Your task to perform on an android device: install app "Calculator" Image 0: 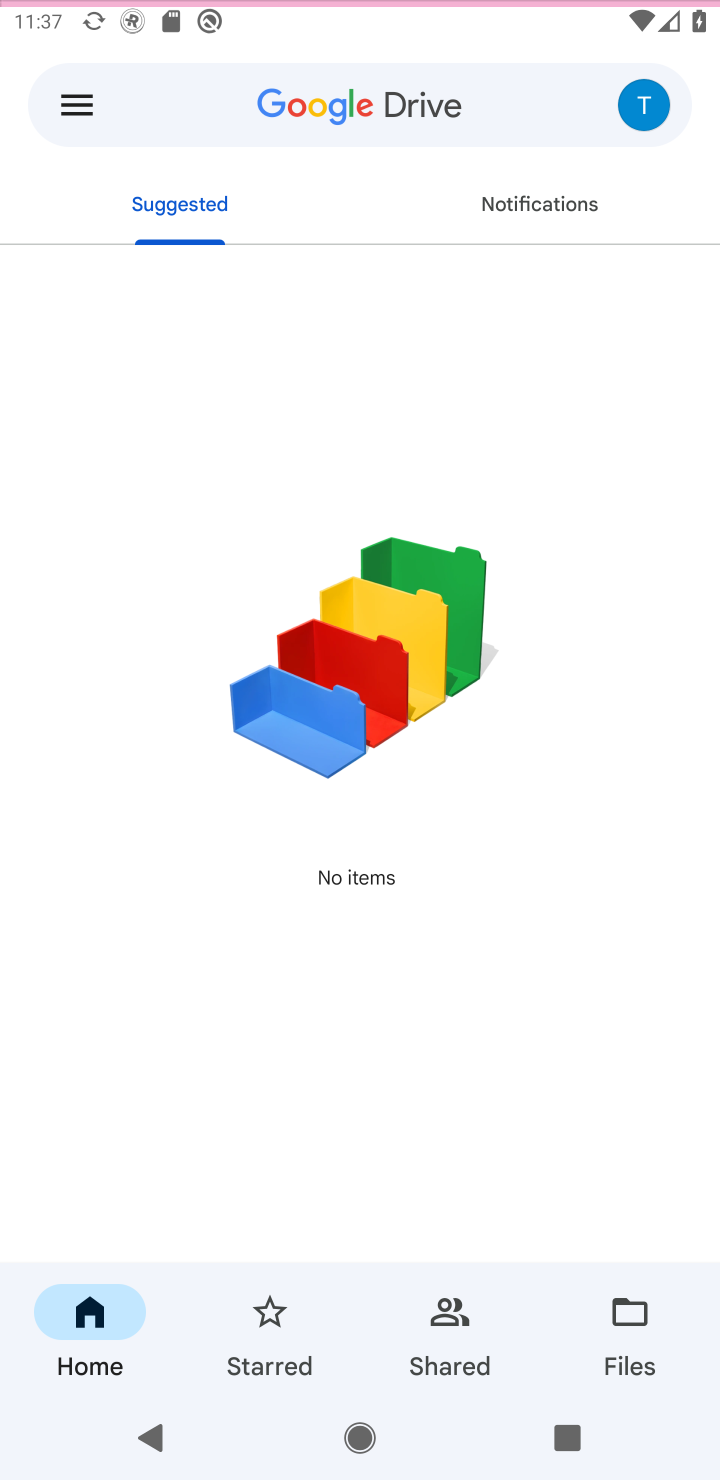
Step 0: press home button
Your task to perform on an android device: install app "Calculator" Image 1: 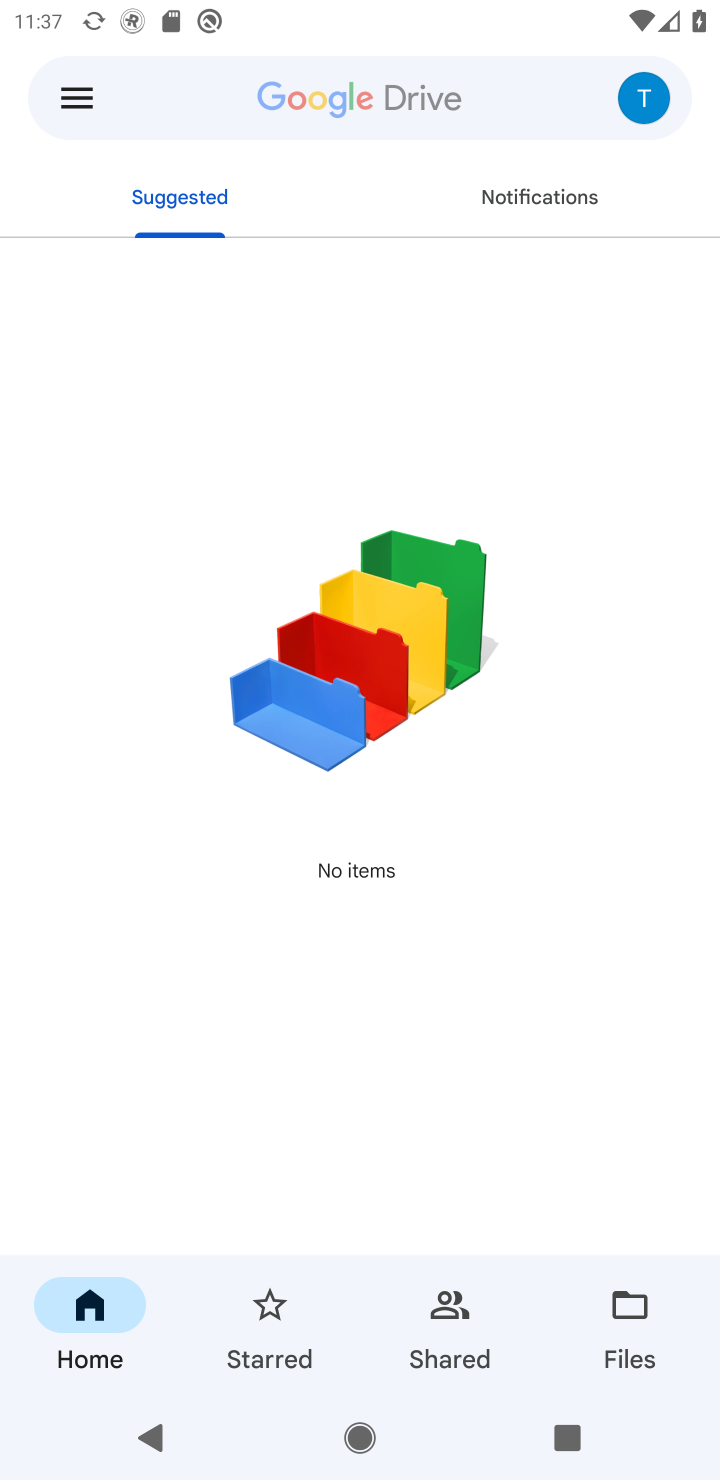
Step 1: press home button
Your task to perform on an android device: install app "Calculator" Image 2: 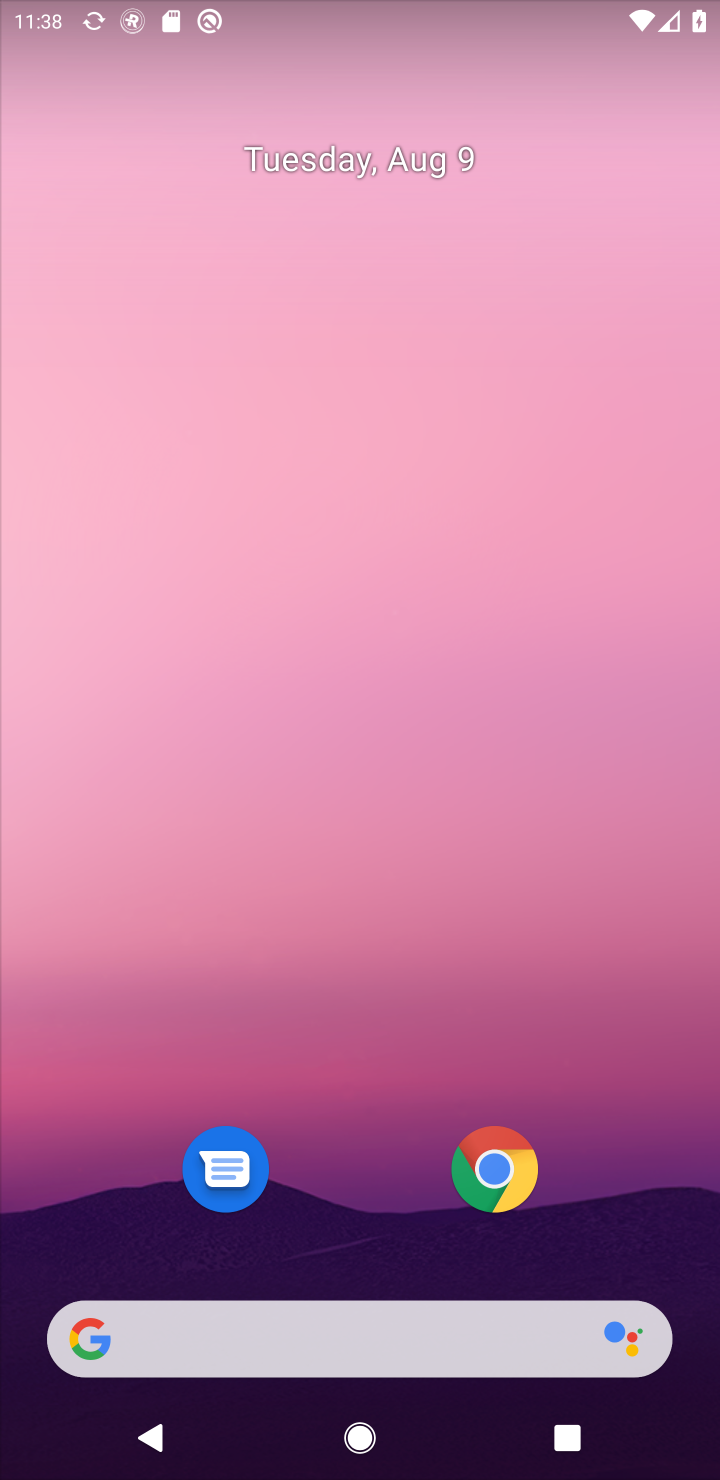
Step 2: drag from (622, 1213) to (651, 143)
Your task to perform on an android device: install app "Calculator" Image 3: 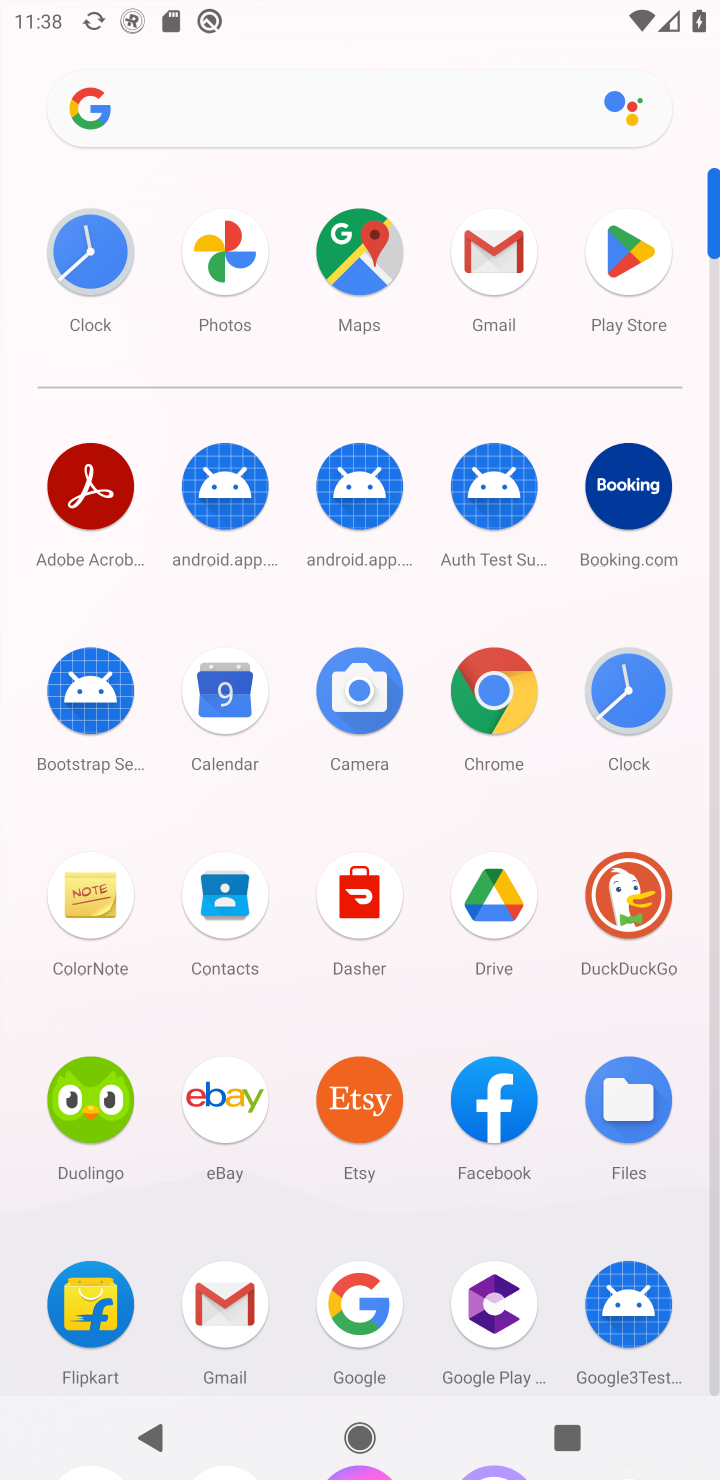
Step 3: click (601, 251)
Your task to perform on an android device: install app "Calculator" Image 4: 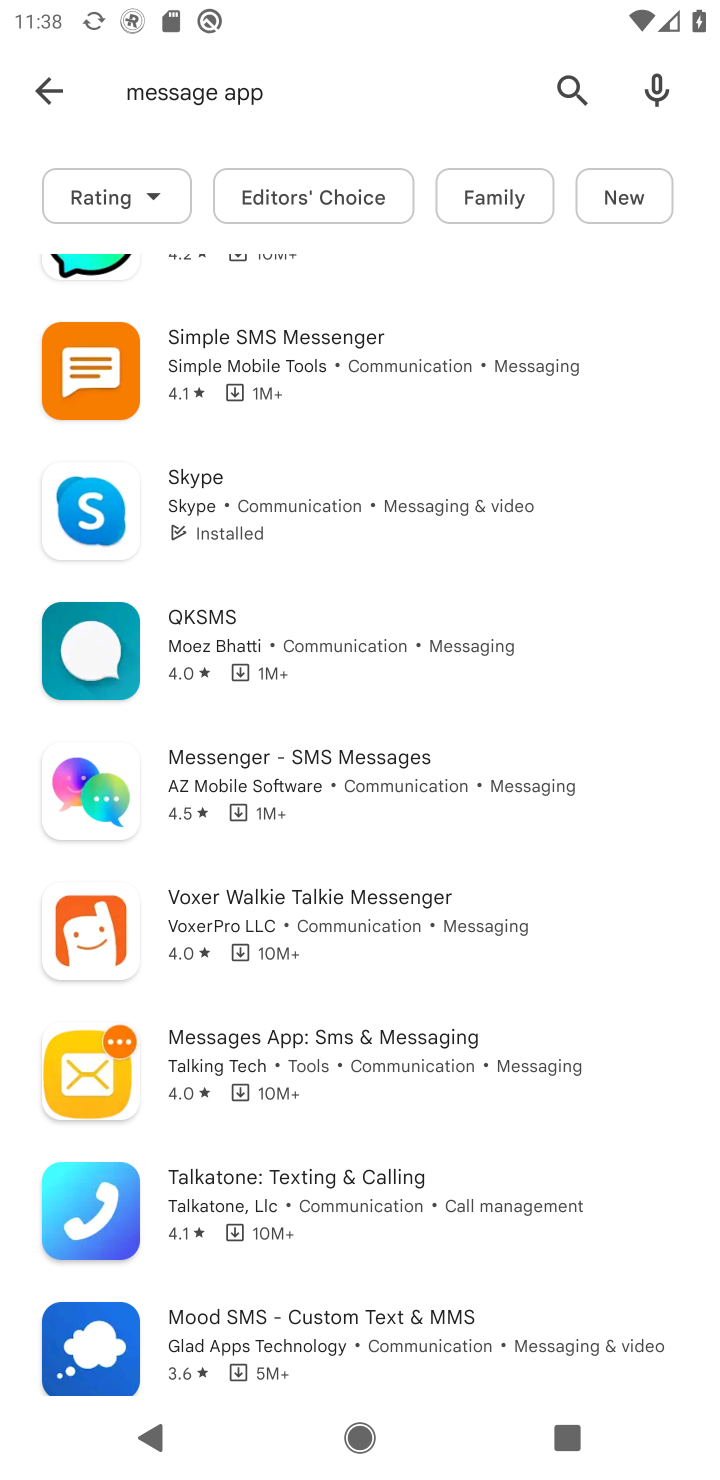
Step 4: click (573, 70)
Your task to perform on an android device: install app "Calculator" Image 5: 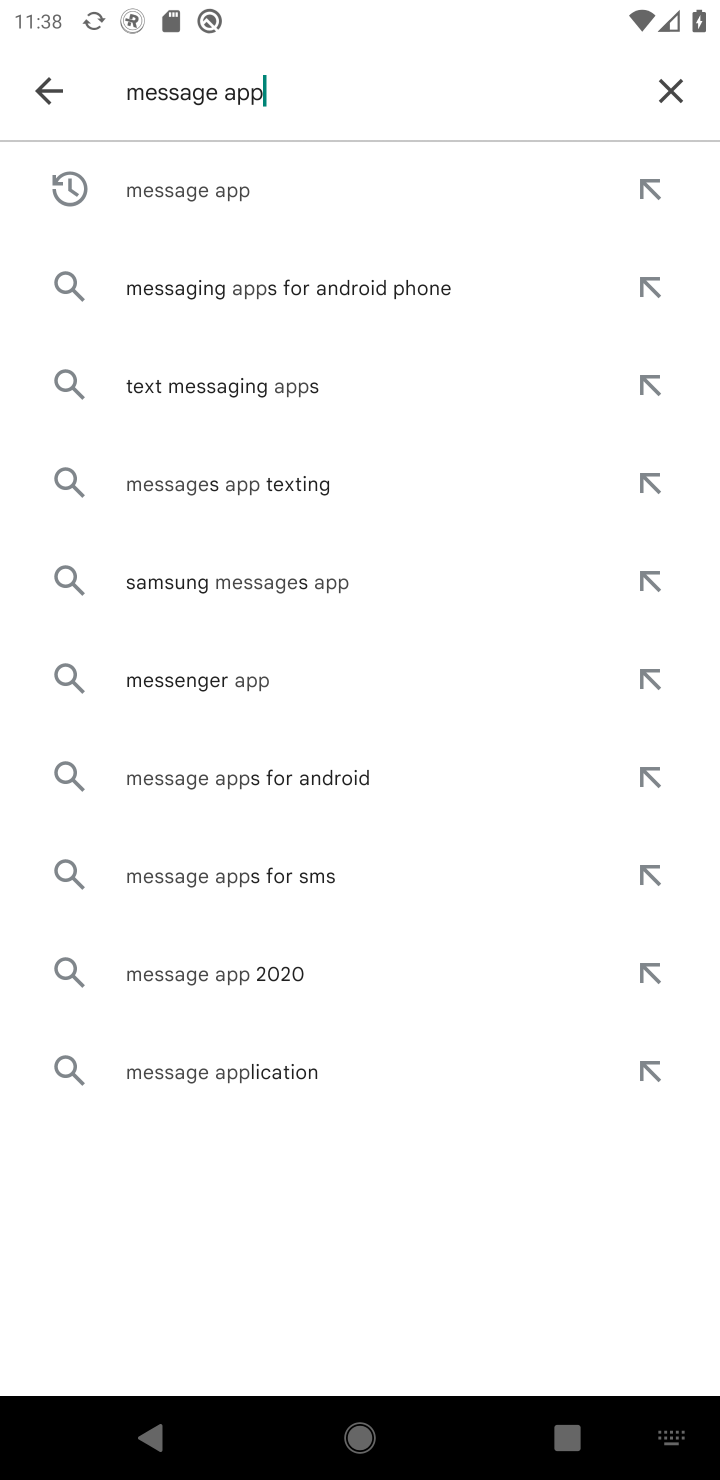
Step 5: click (685, 89)
Your task to perform on an android device: install app "Calculator" Image 6: 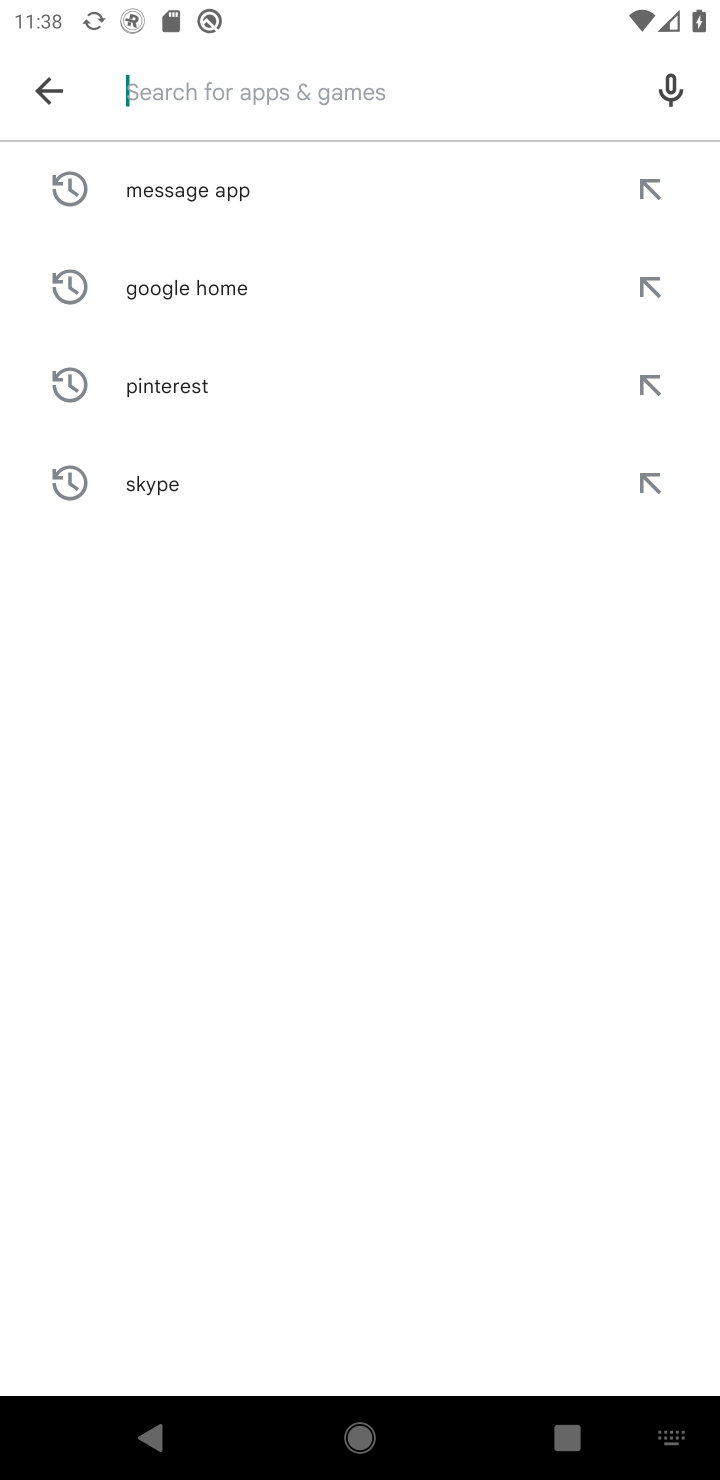
Step 6: type "calculater"
Your task to perform on an android device: install app "Calculator" Image 7: 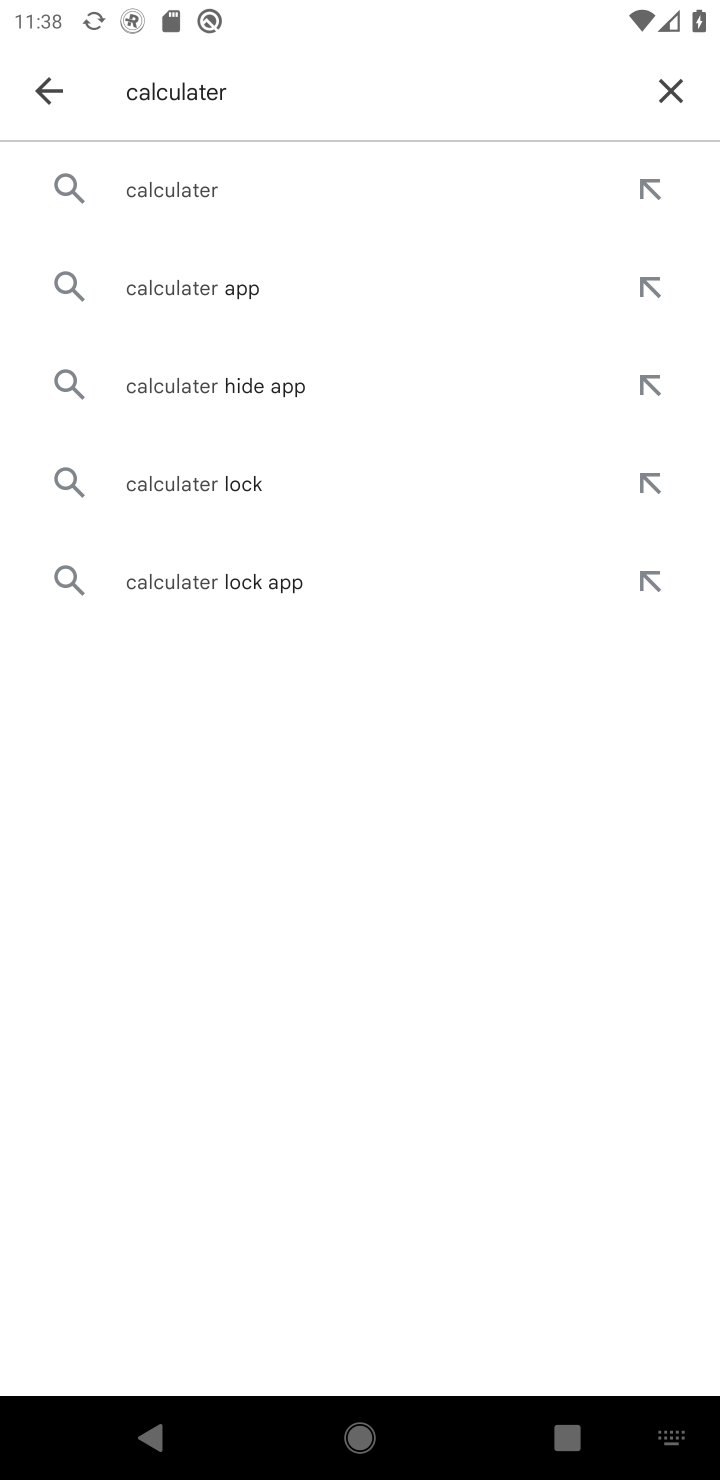
Step 7: click (216, 199)
Your task to perform on an android device: install app "Calculator" Image 8: 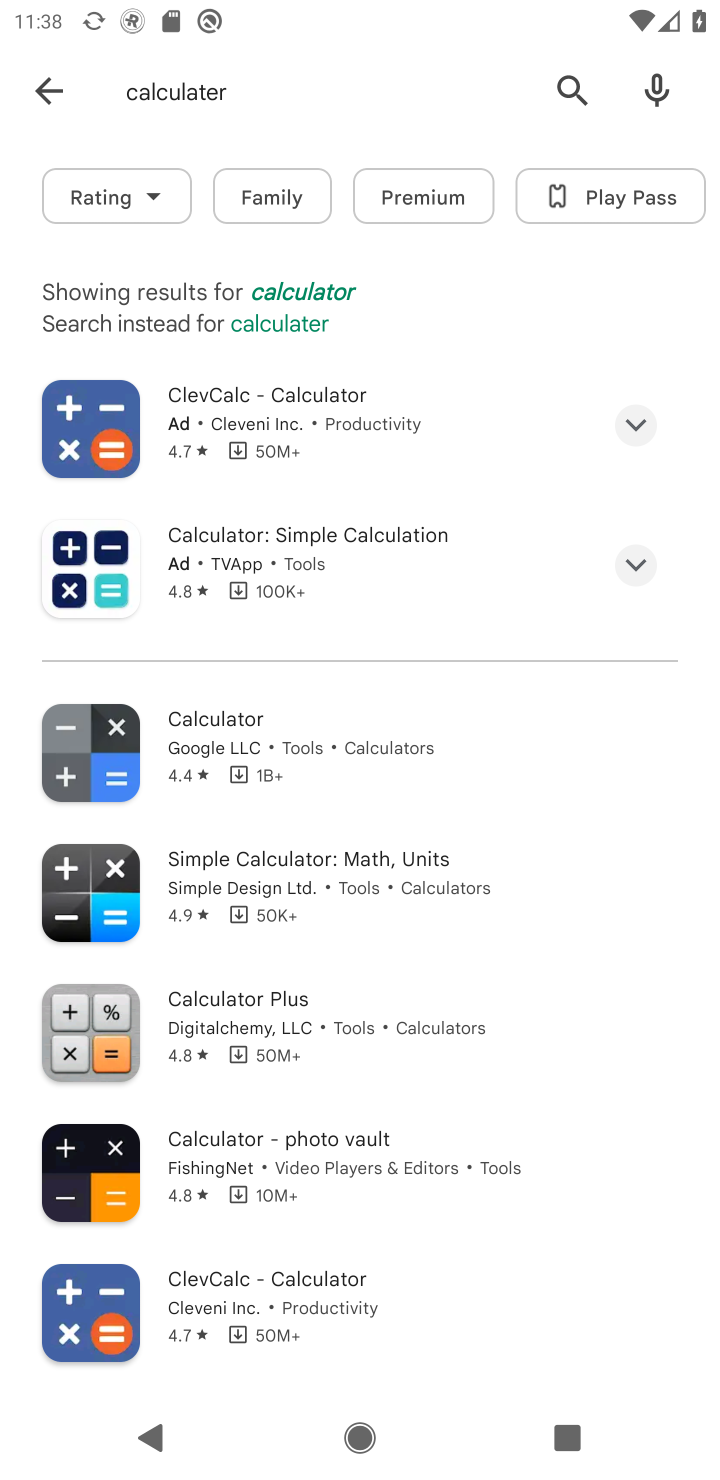
Step 8: task complete